Your task to perform on an android device: Show me recent news Image 0: 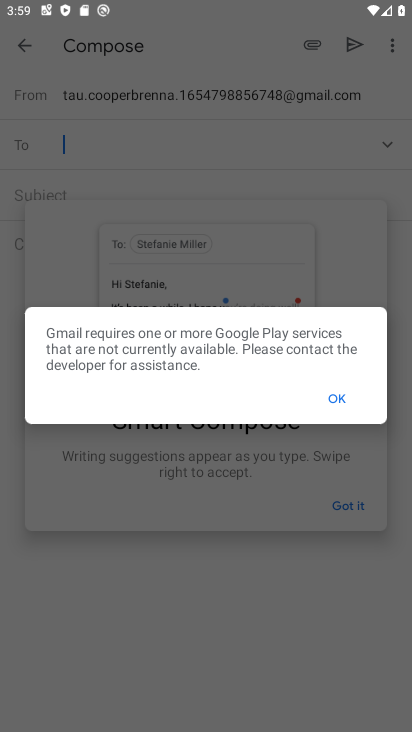
Step 0: task complete